Your task to perform on an android device: Search for Mexican restaurants on Maps Image 0: 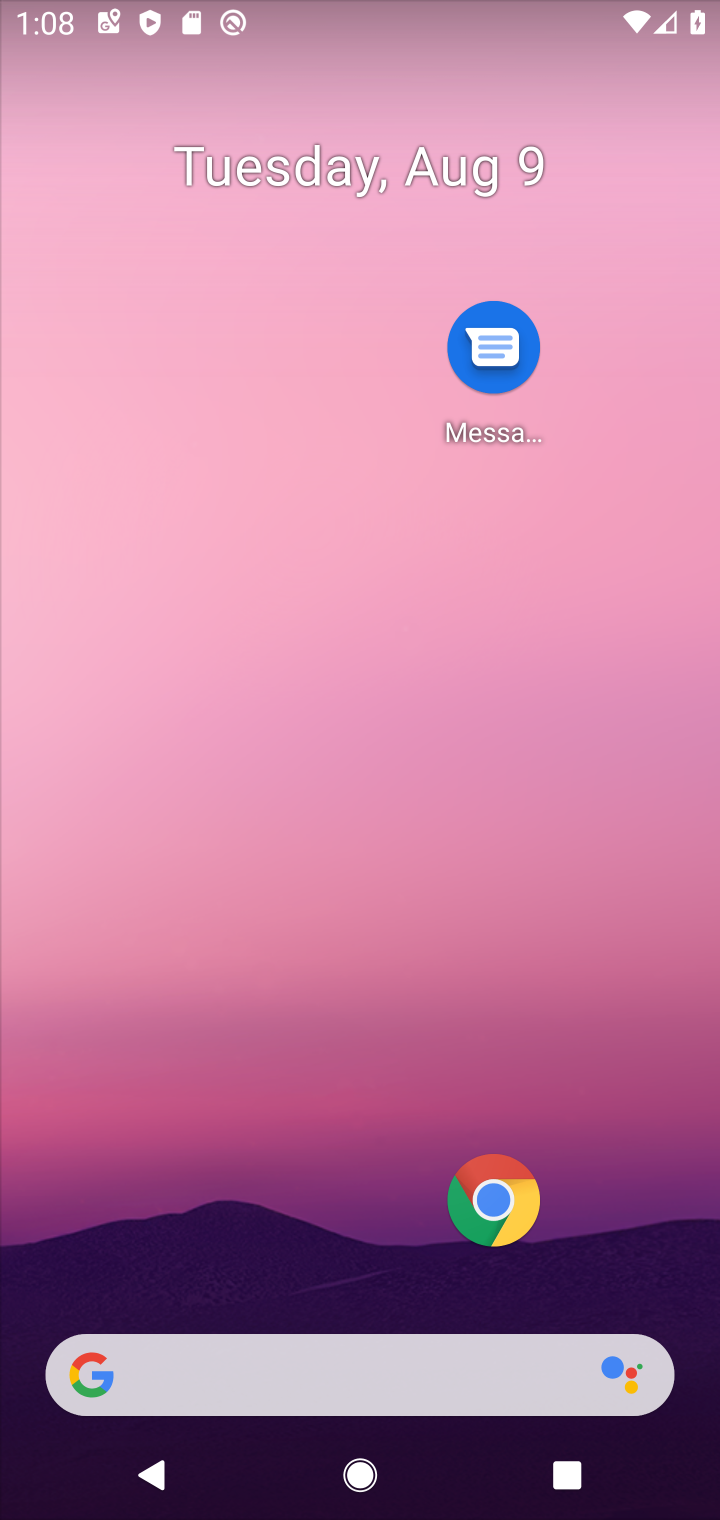
Step 0: drag from (201, 1020) to (311, 15)
Your task to perform on an android device: Search for Mexican restaurants on Maps Image 1: 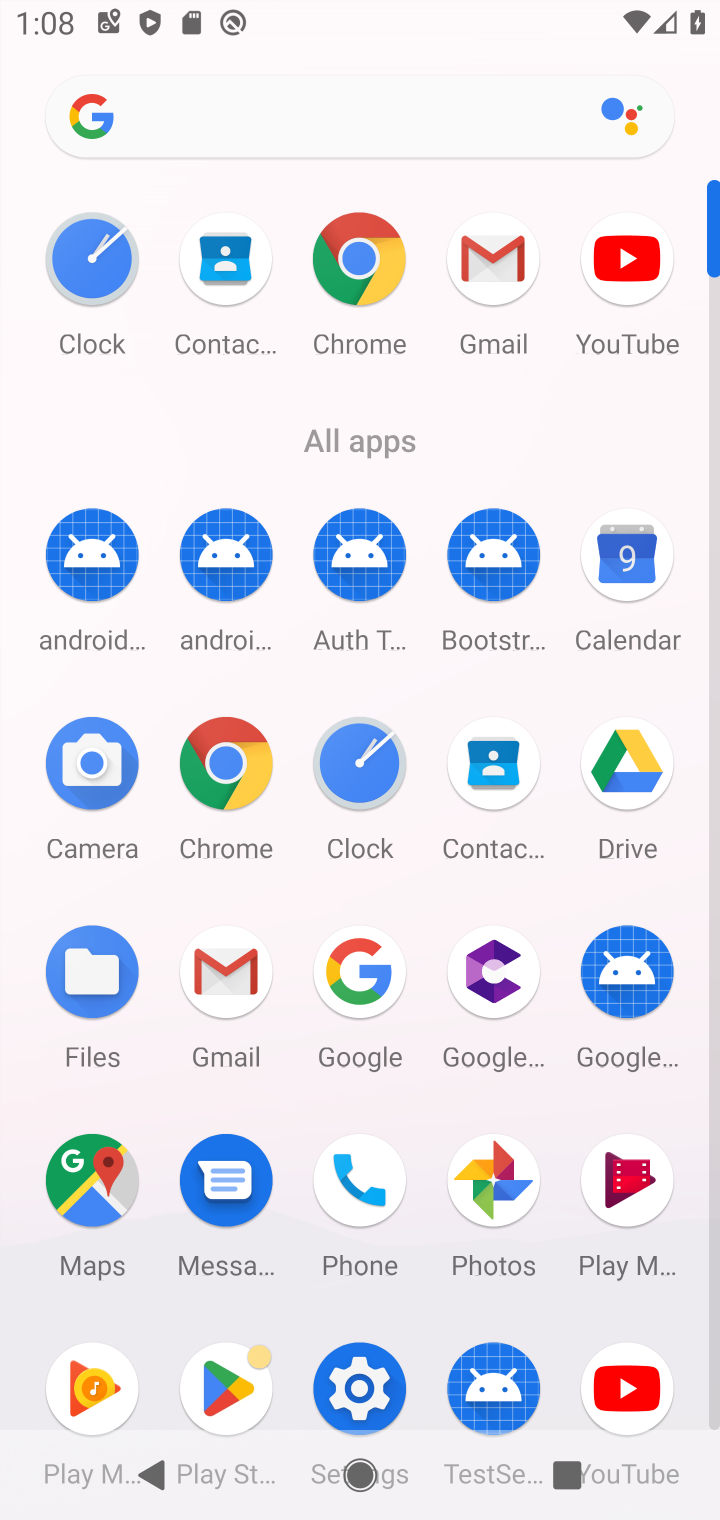
Step 1: click (93, 1171)
Your task to perform on an android device: Search for Mexican restaurants on Maps Image 2: 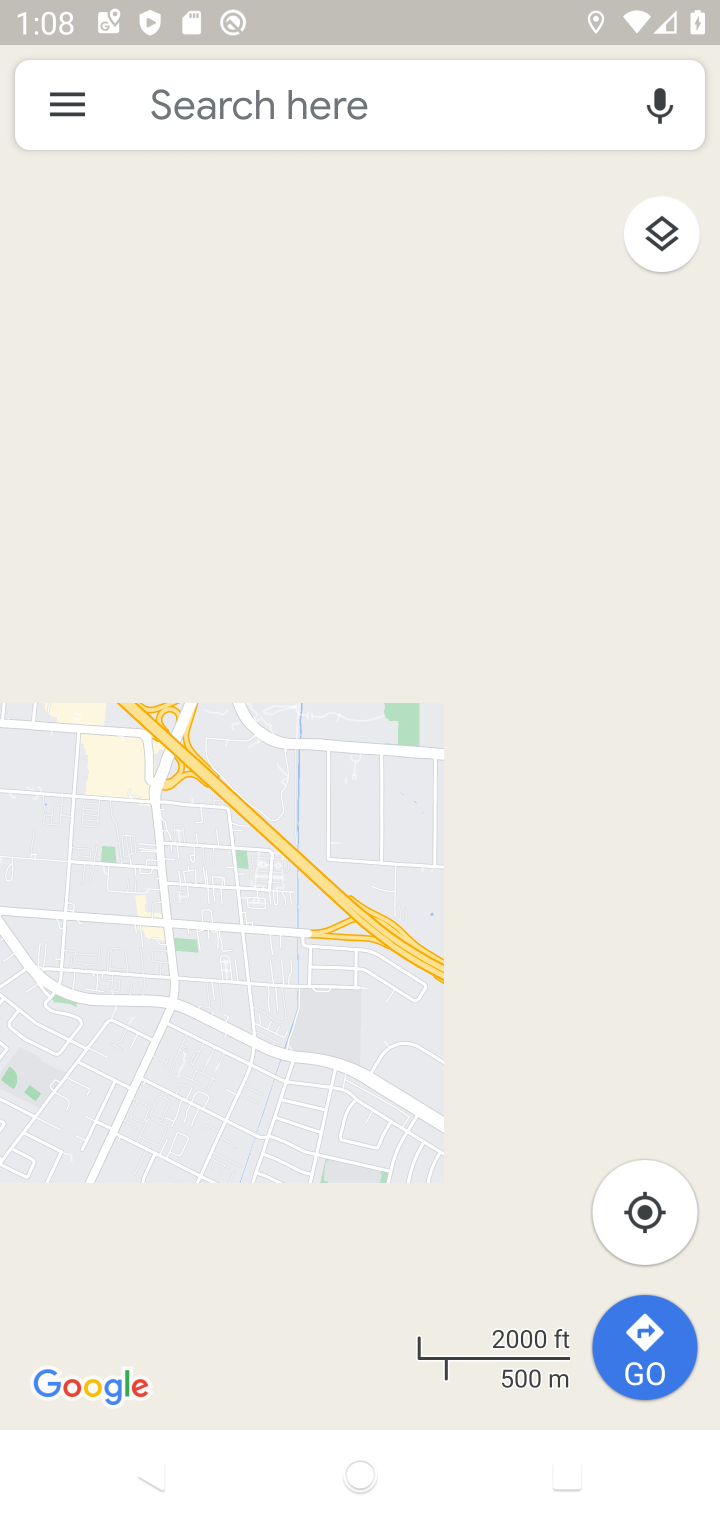
Step 2: click (332, 102)
Your task to perform on an android device: Search for Mexican restaurants on Maps Image 3: 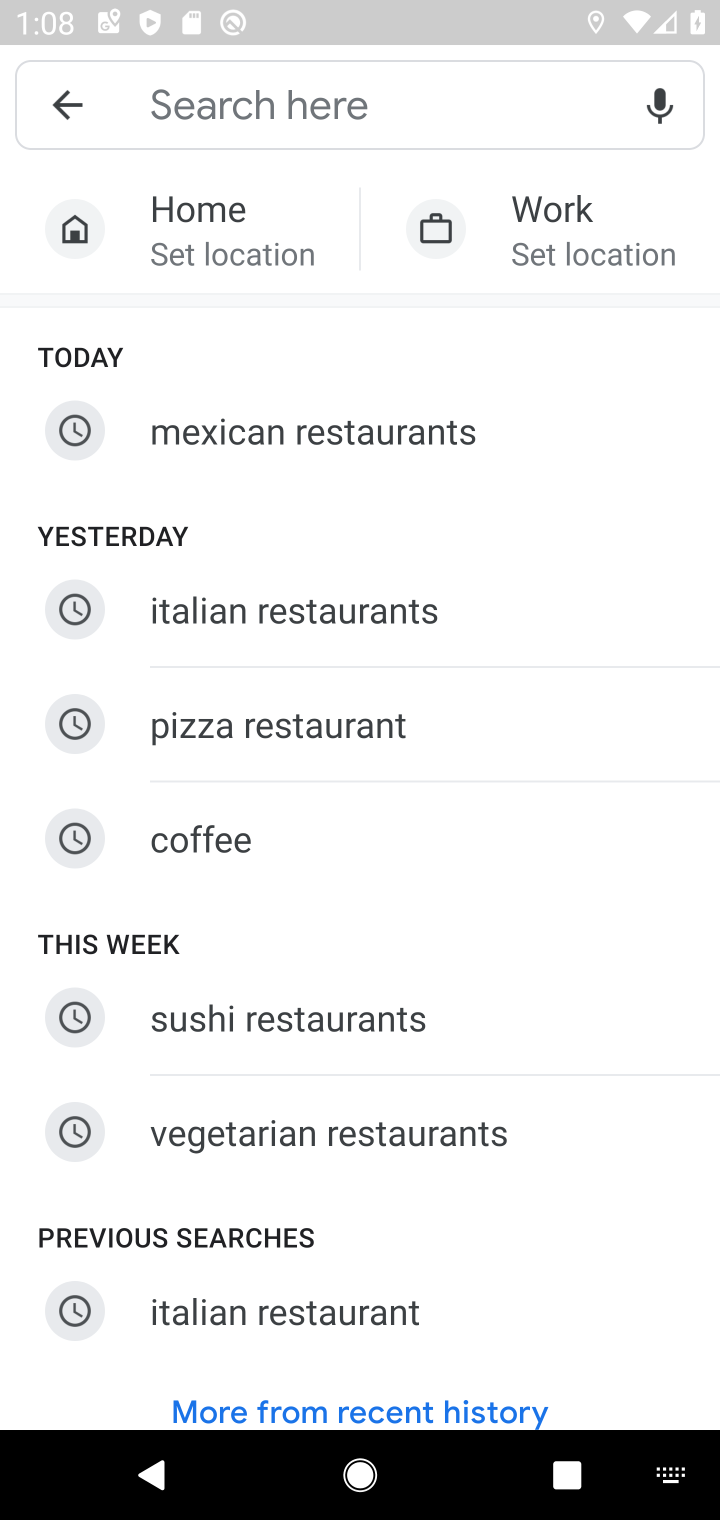
Step 3: type "mex"
Your task to perform on an android device: Search for Mexican restaurants on Maps Image 4: 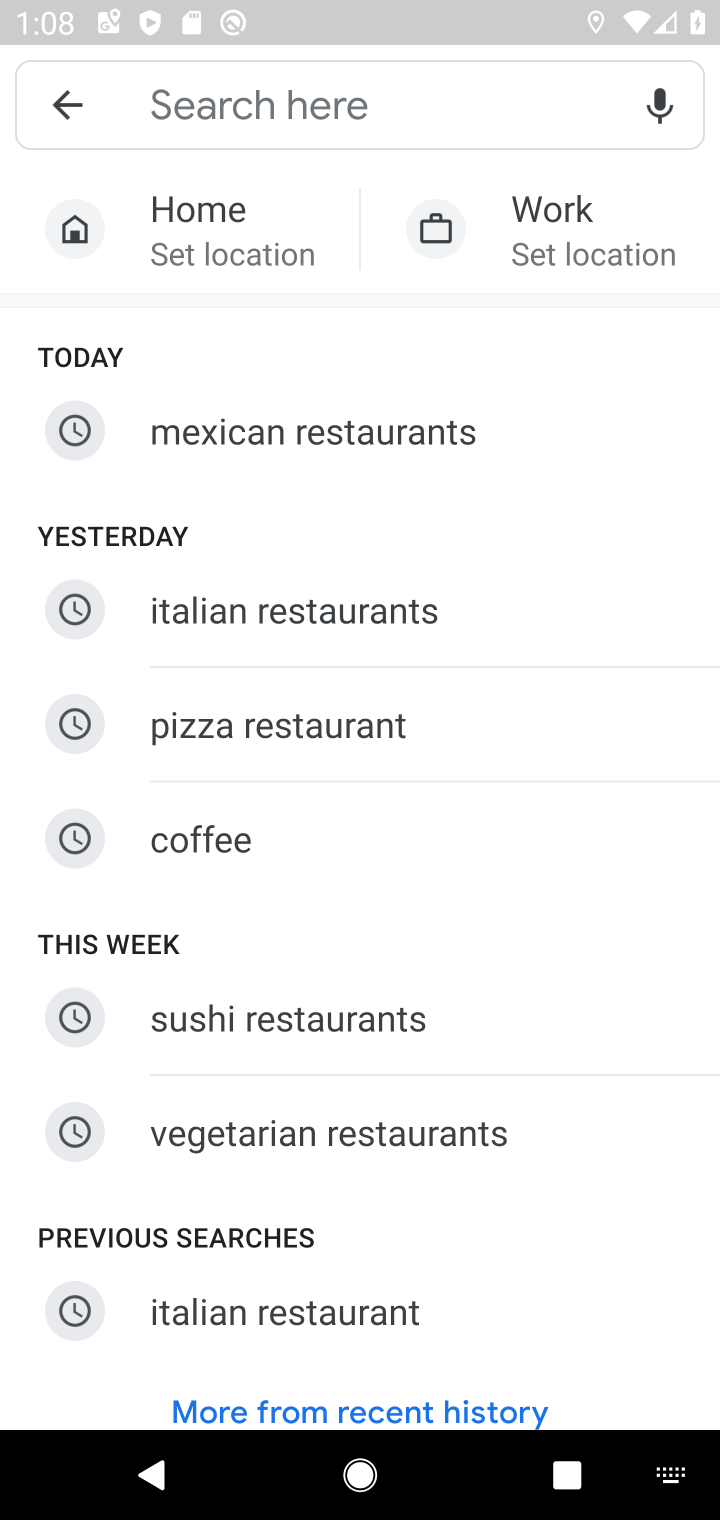
Step 4: click (298, 422)
Your task to perform on an android device: Search for Mexican restaurants on Maps Image 5: 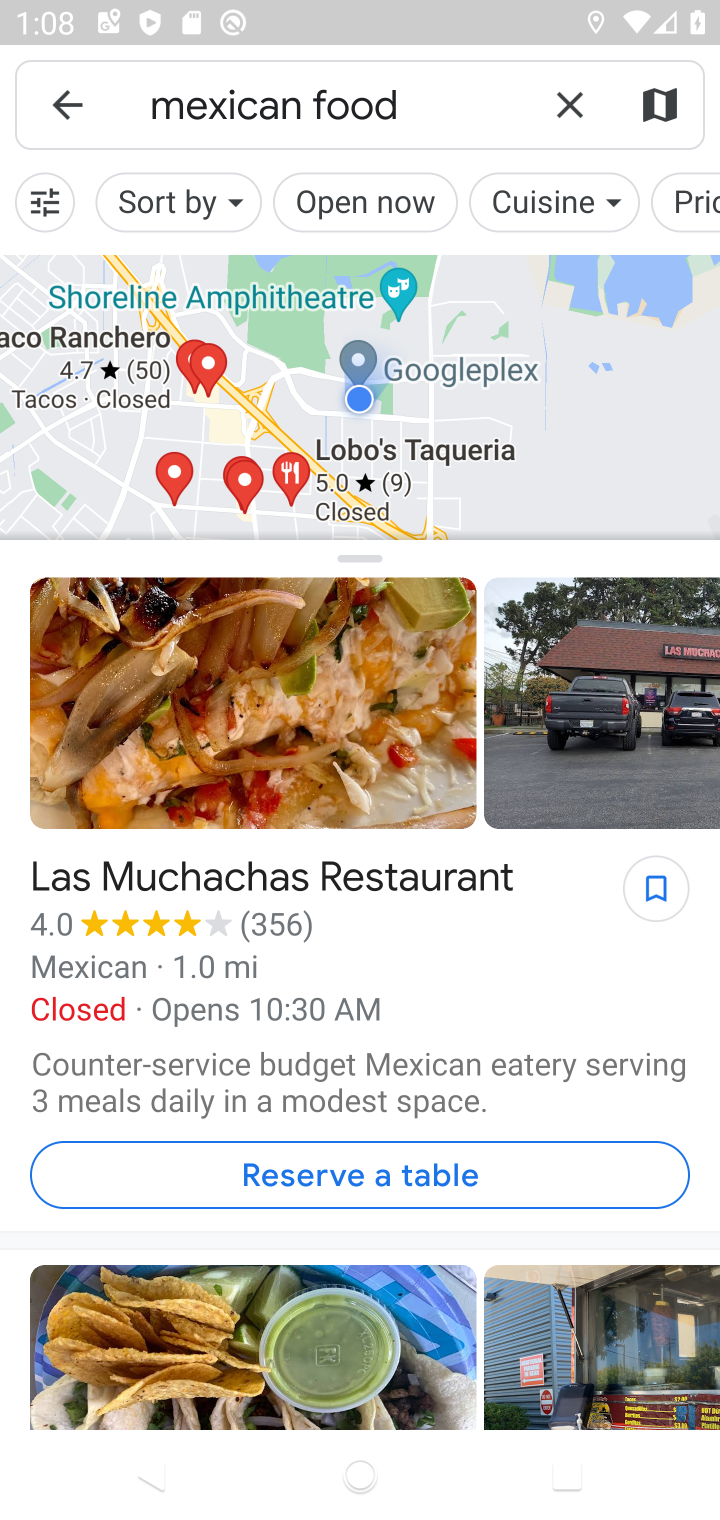
Step 5: task complete